Your task to perform on an android device: toggle pop-ups in chrome Image 0: 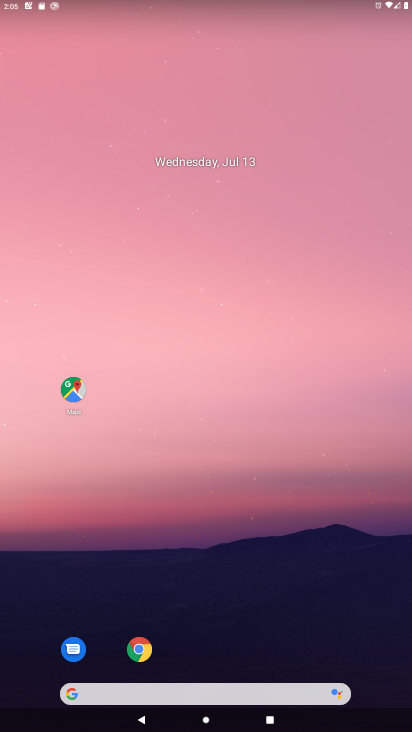
Step 0: press home button
Your task to perform on an android device: toggle pop-ups in chrome Image 1: 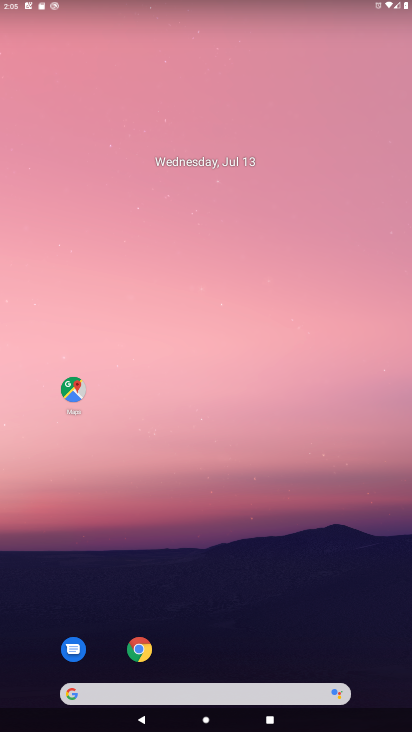
Step 1: click (137, 654)
Your task to perform on an android device: toggle pop-ups in chrome Image 2: 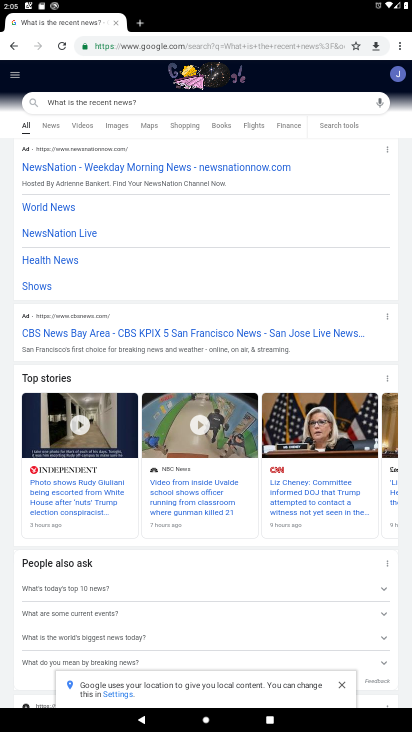
Step 2: click (399, 45)
Your task to perform on an android device: toggle pop-ups in chrome Image 3: 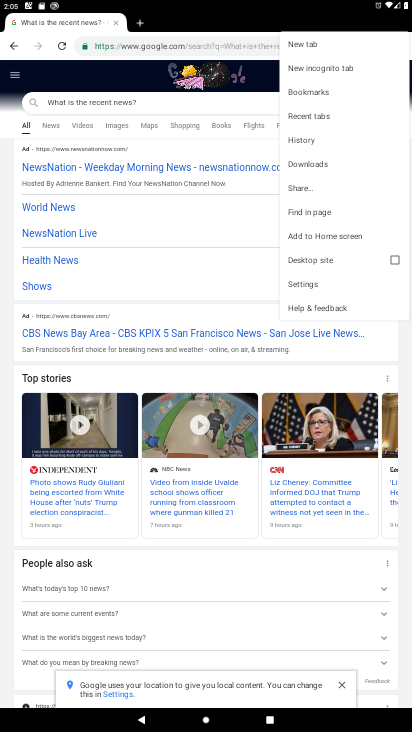
Step 3: click (295, 284)
Your task to perform on an android device: toggle pop-ups in chrome Image 4: 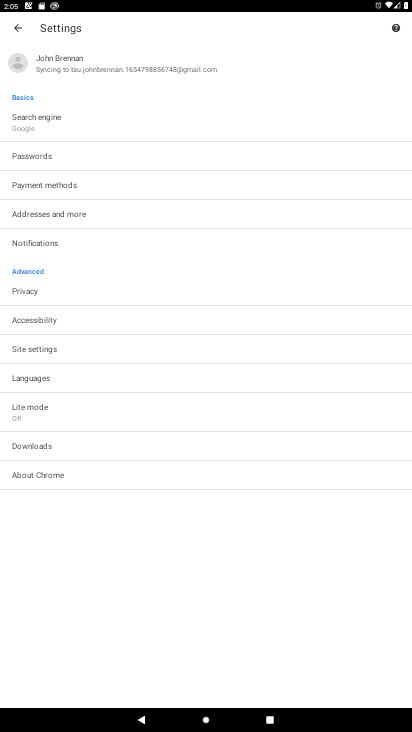
Step 4: click (43, 350)
Your task to perform on an android device: toggle pop-ups in chrome Image 5: 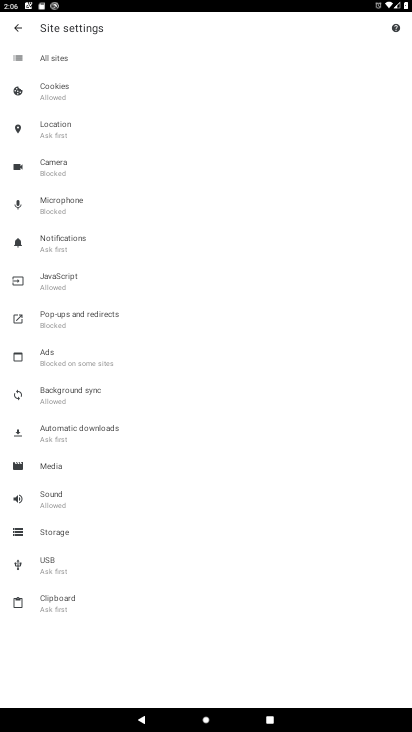
Step 5: click (58, 321)
Your task to perform on an android device: toggle pop-ups in chrome Image 6: 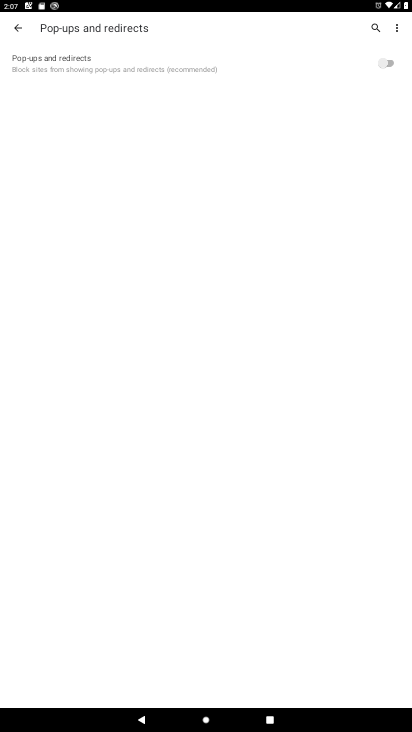
Step 6: click (177, 57)
Your task to perform on an android device: toggle pop-ups in chrome Image 7: 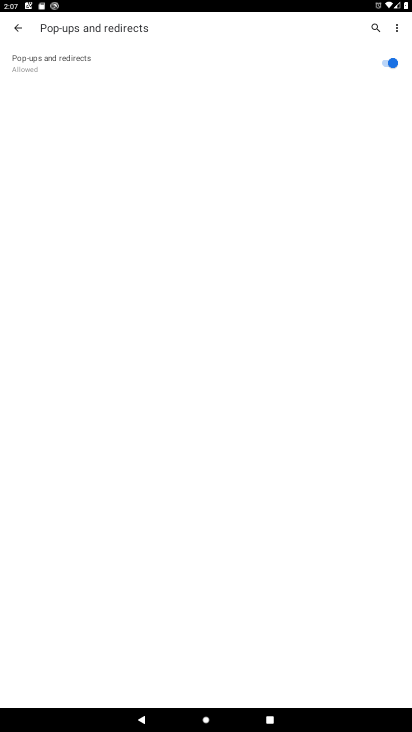
Step 7: task complete